Your task to perform on an android device: turn on sleep mode Image 0: 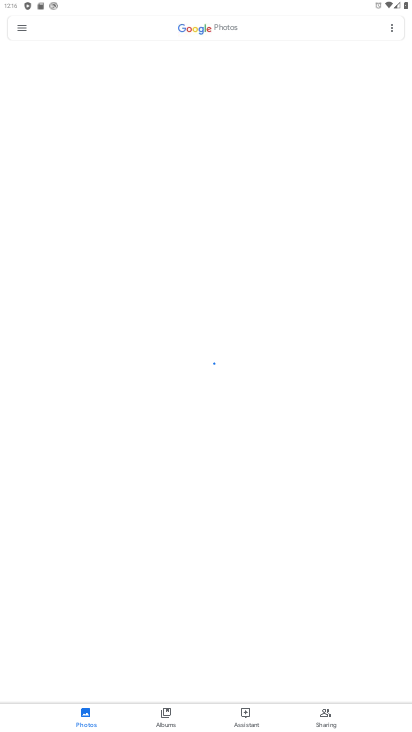
Step 0: press home button
Your task to perform on an android device: turn on sleep mode Image 1: 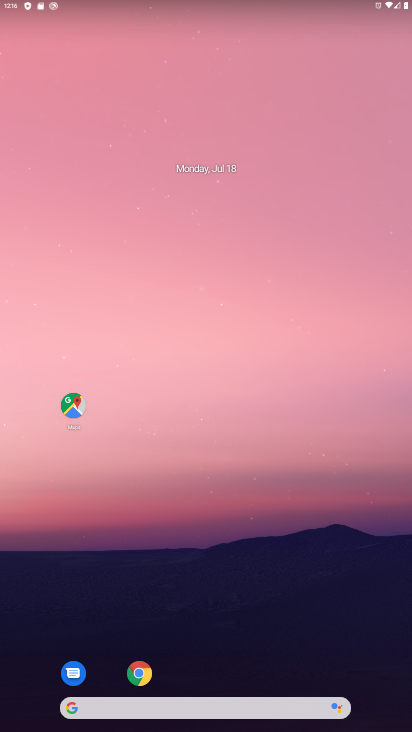
Step 1: drag from (221, 674) to (198, 71)
Your task to perform on an android device: turn on sleep mode Image 2: 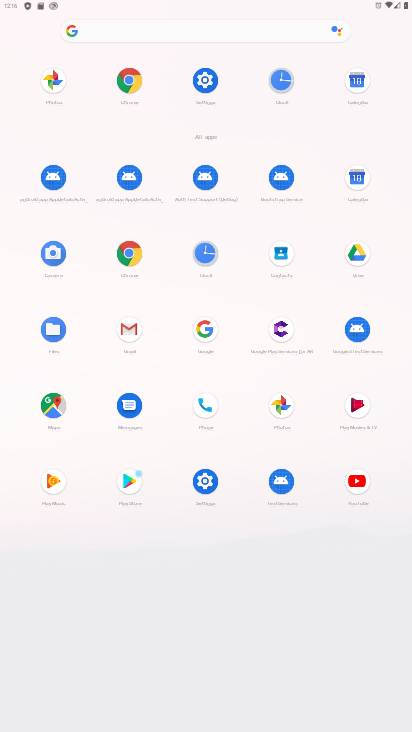
Step 2: click (202, 107)
Your task to perform on an android device: turn on sleep mode Image 3: 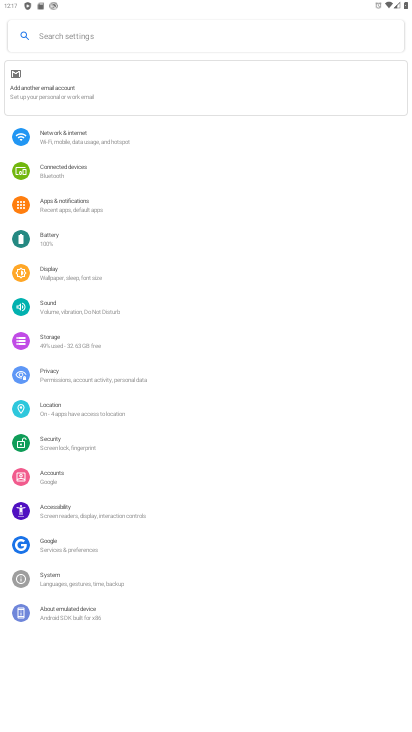
Step 3: click (88, 280)
Your task to perform on an android device: turn on sleep mode Image 4: 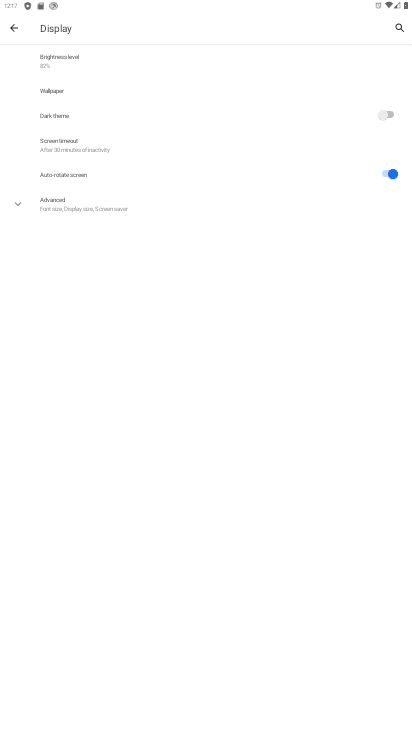
Step 4: task complete